Your task to perform on an android device: Open eBay Image 0: 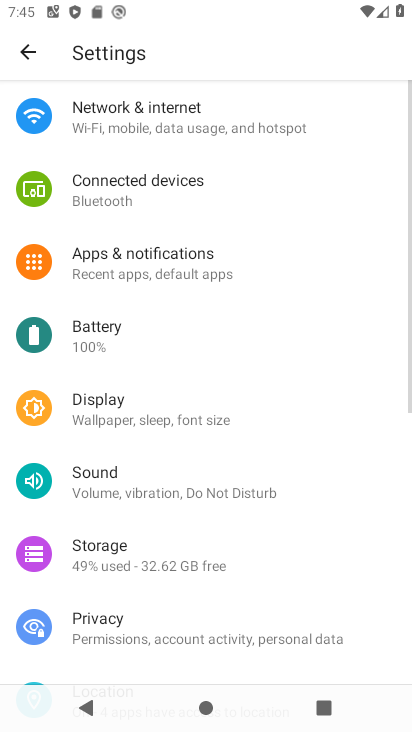
Step 0: press home button
Your task to perform on an android device: Open eBay Image 1: 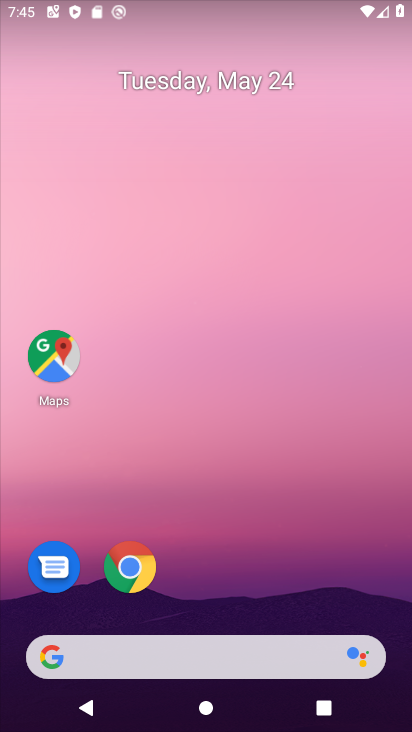
Step 1: click (160, 648)
Your task to perform on an android device: Open eBay Image 2: 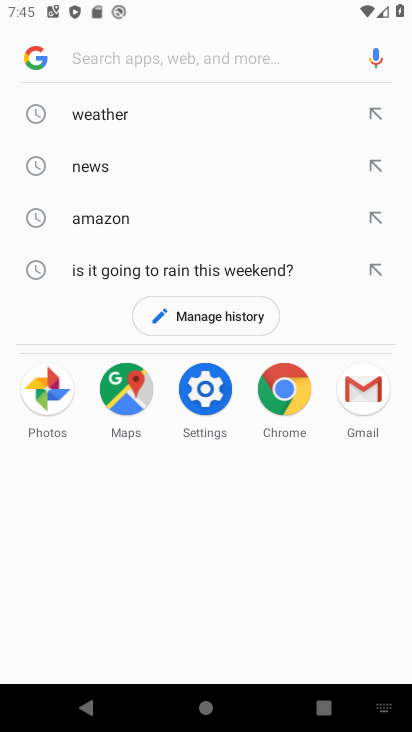
Step 2: type "ebay"
Your task to perform on an android device: Open eBay Image 3: 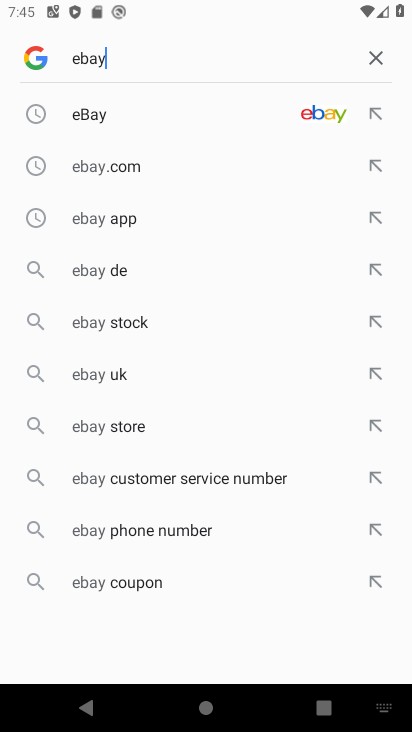
Step 3: click (227, 112)
Your task to perform on an android device: Open eBay Image 4: 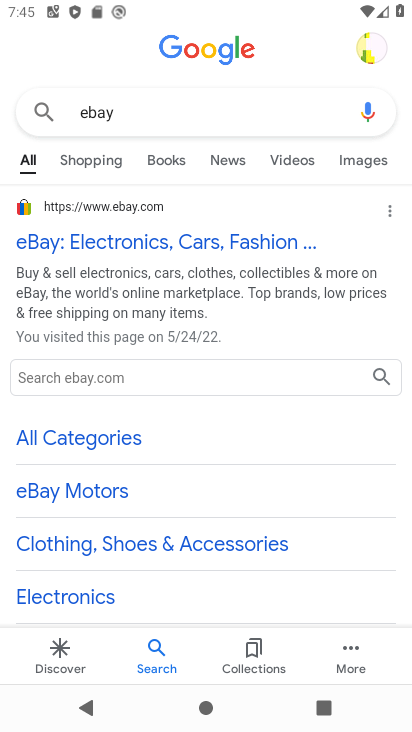
Step 4: click (132, 242)
Your task to perform on an android device: Open eBay Image 5: 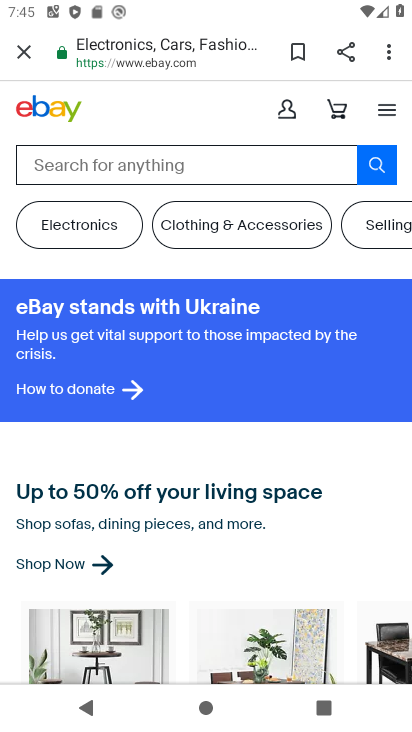
Step 5: task complete